Your task to perform on an android device: toggle improve location accuracy Image 0: 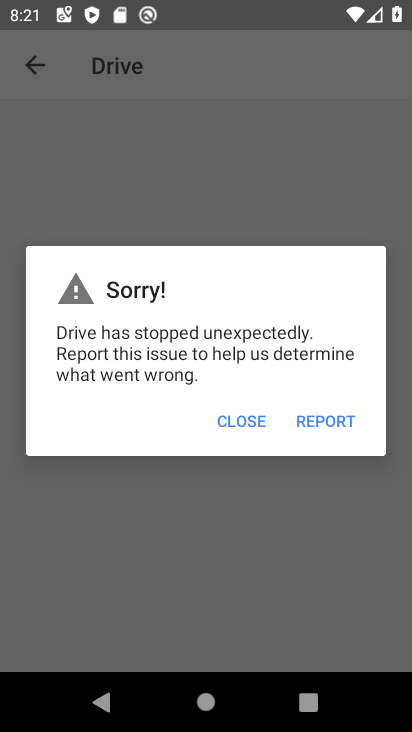
Step 0: press home button
Your task to perform on an android device: toggle improve location accuracy Image 1: 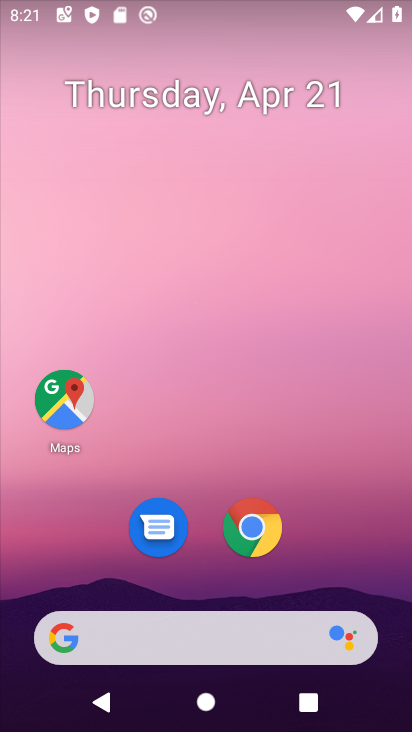
Step 1: drag from (287, 589) to (280, 132)
Your task to perform on an android device: toggle improve location accuracy Image 2: 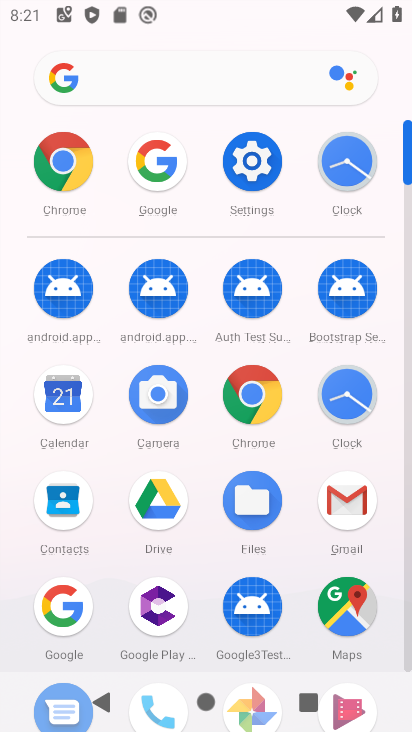
Step 2: click (252, 164)
Your task to perform on an android device: toggle improve location accuracy Image 3: 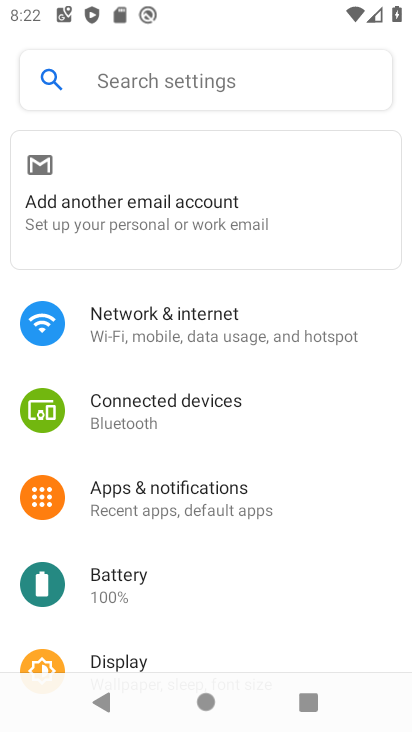
Step 3: drag from (225, 531) to (285, 177)
Your task to perform on an android device: toggle improve location accuracy Image 4: 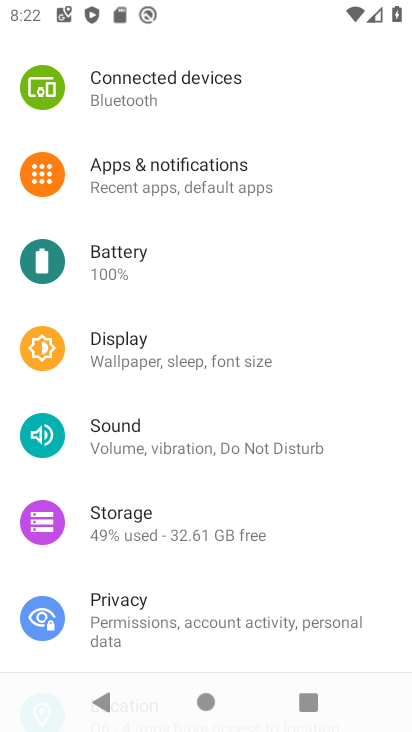
Step 4: drag from (265, 420) to (277, 199)
Your task to perform on an android device: toggle improve location accuracy Image 5: 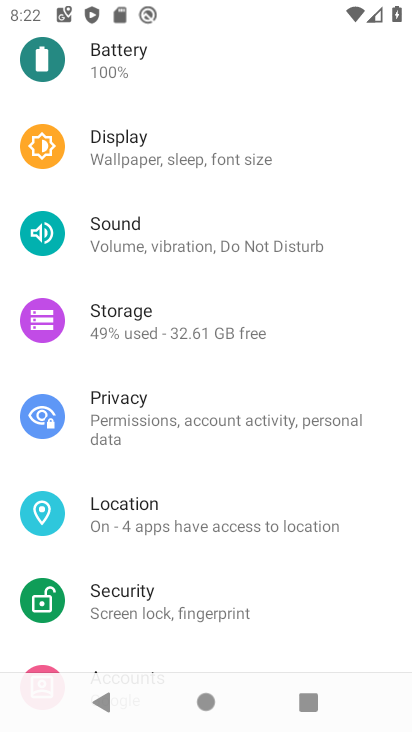
Step 5: click (223, 513)
Your task to perform on an android device: toggle improve location accuracy Image 6: 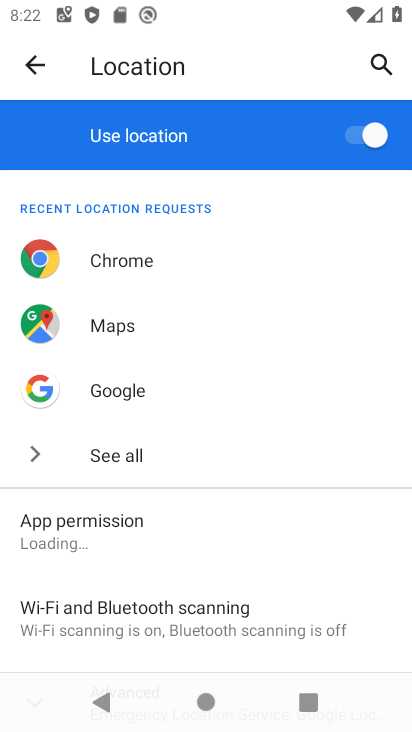
Step 6: drag from (212, 501) to (227, 264)
Your task to perform on an android device: toggle improve location accuracy Image 7: 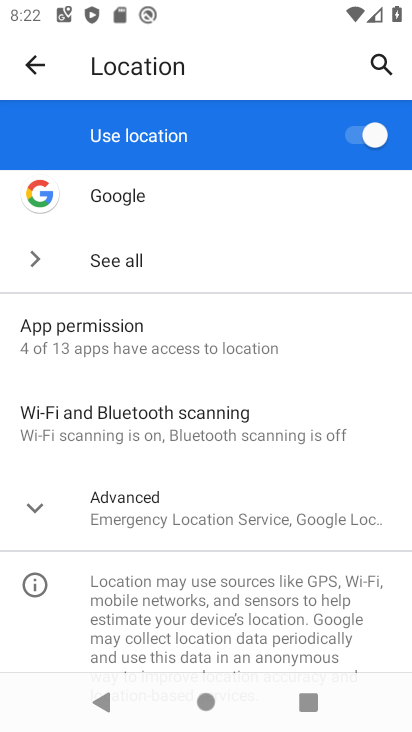
Step 7: click (233, 519)
Your task to perform on an android device: toggle improve location accuracy Image 8: 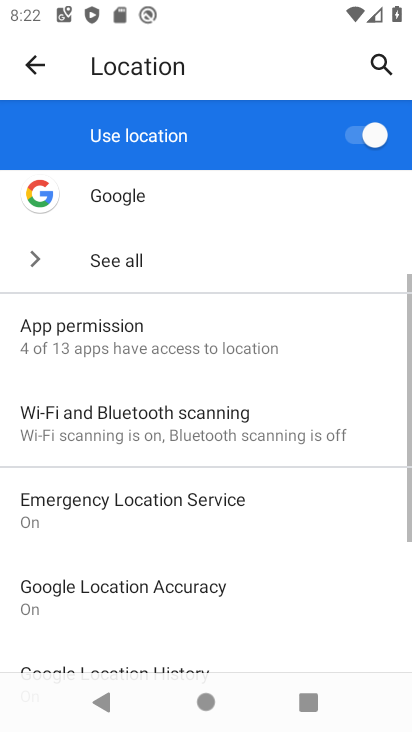
Step 8: drag from (215, 380) to (222, 249)
Your task to perform on an android device: toggle improve location accuracy Image 9: 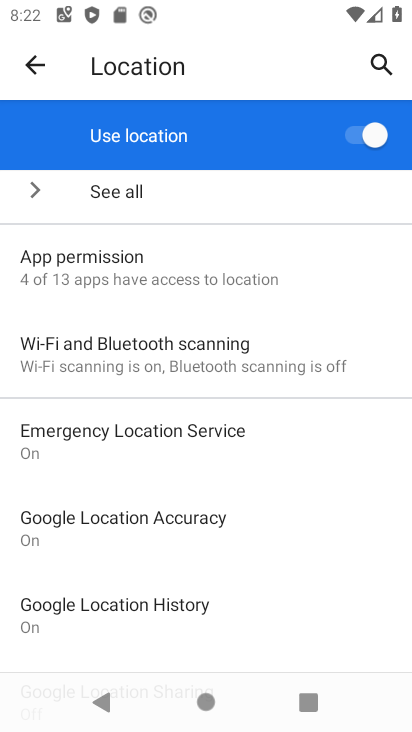
Step 9: click (195, 537)
Your task to perform on an android device: toggle improve location accuracy Image 10: 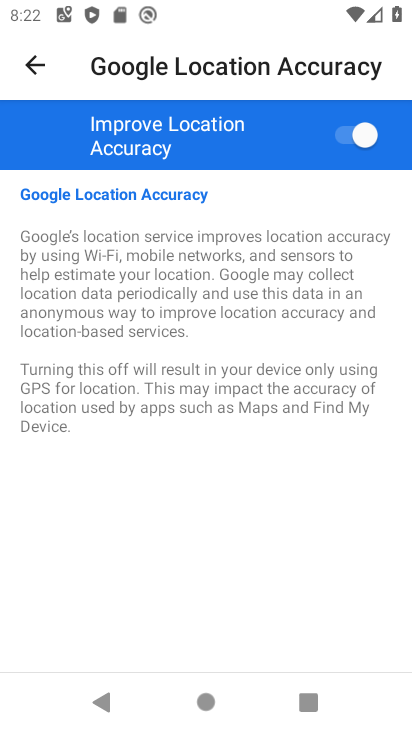
Step 10: click (333, 140)
Your task to perform on an android device: toggle improve location accuracy Image 11: 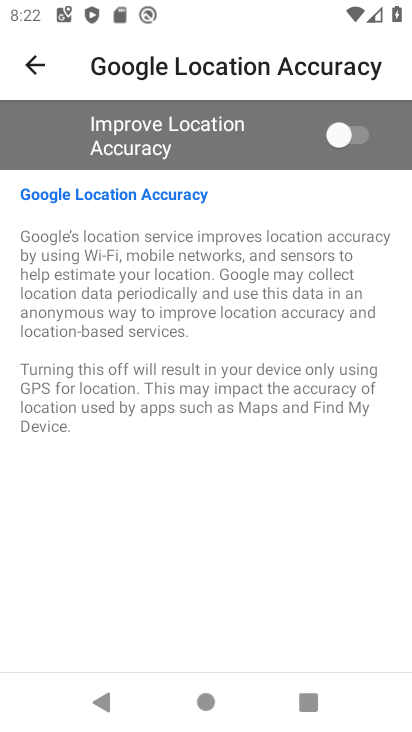
Step 11: task complete